Your task to perform on an android device: Open Chrome and go to the settings page Image 0: 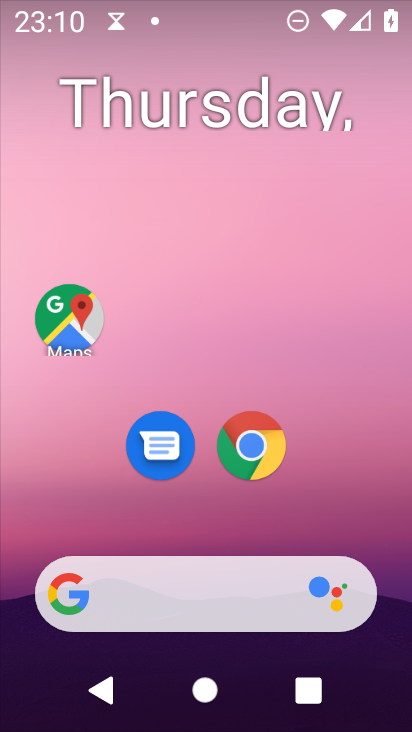
Step 0: click (252, 451)
Your task to perform on an android device: Open Chrome and go to the settings page Image 1: 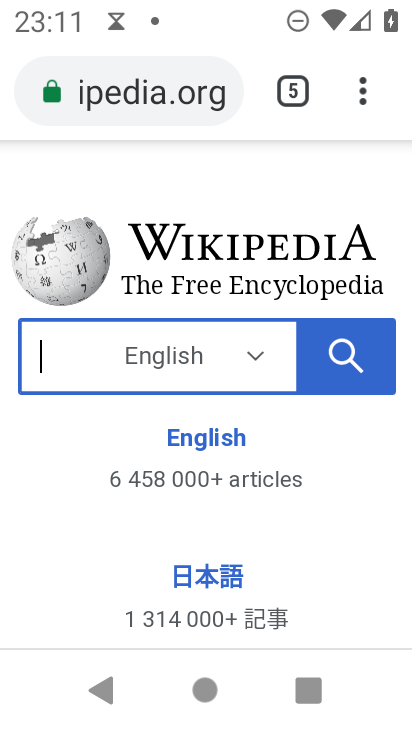
Step 1: click (362, 100)
Your task to perform on an android device: Open Chrome and go to the settings page Image 2: 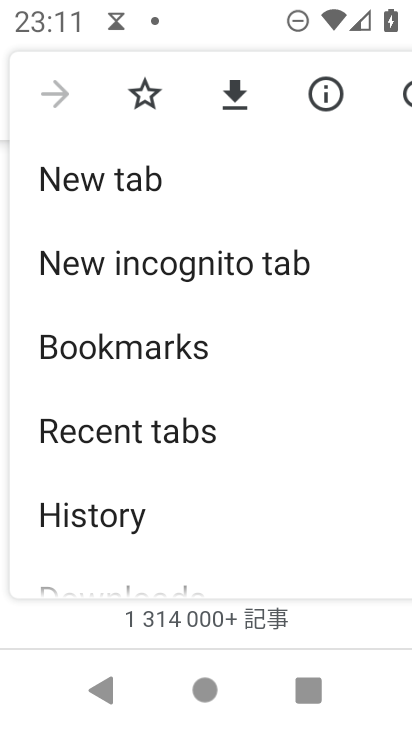
Step 2: drag from (137, 553) to (145, 118)
Your task to perform on an android device: Open Chrome and go to the settings page Image 3: 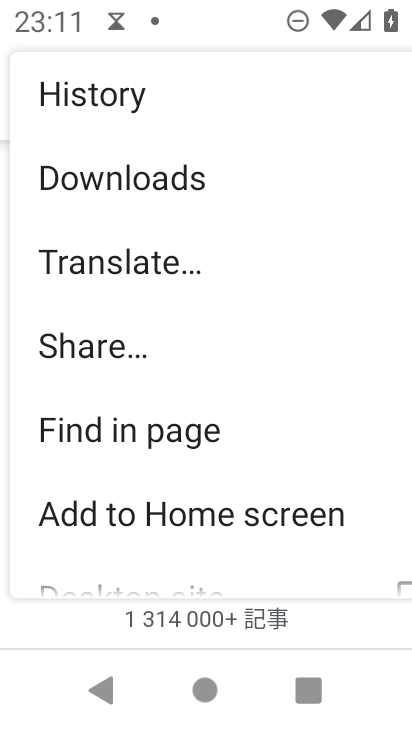
Step 3: drag from (125, 543) to (135, 187)
Your task to perform on an android device: Open Chrome and go to the settings page Image 4: 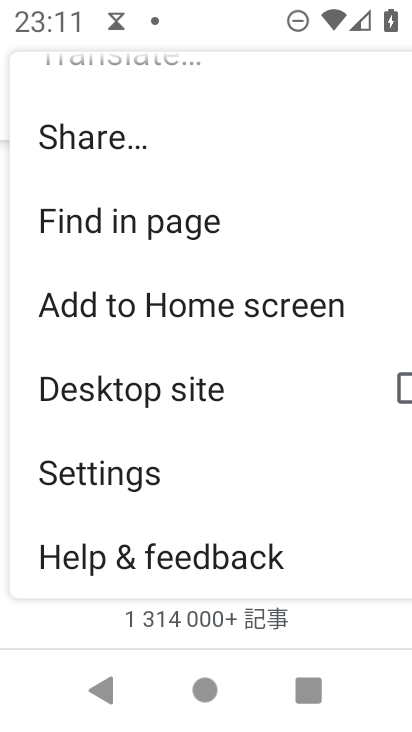
Step 4: click (110, 466)
Your task to perform on an android device: Open Chrome and go to the settings page Image 5: 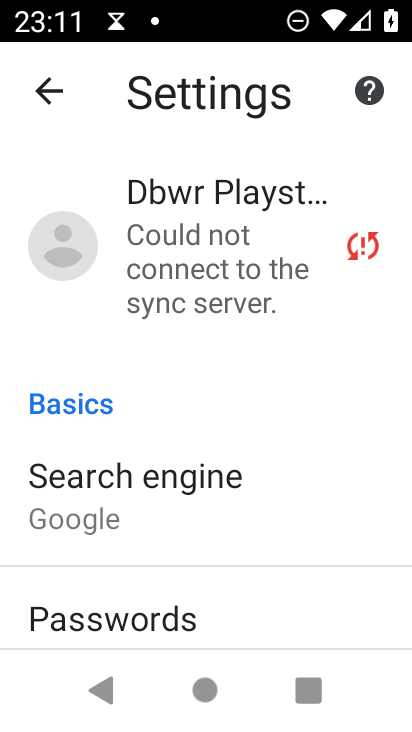
Step 5: task complete